Your task to perform on an android device: Open battery settings Image 0: 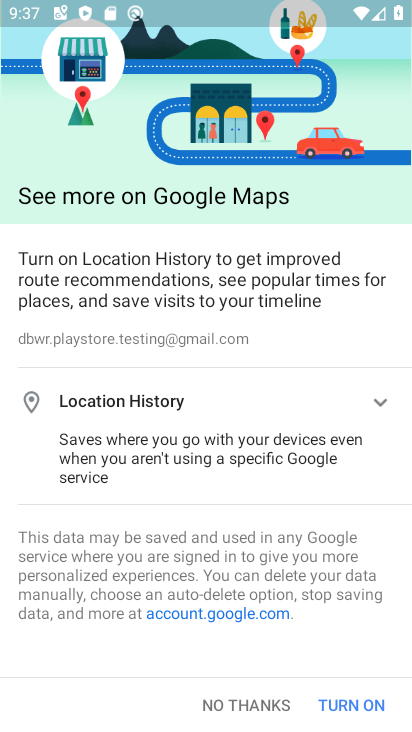
Step 0: press home button
Your task to perform on an android device: Open battery settings Image 1: 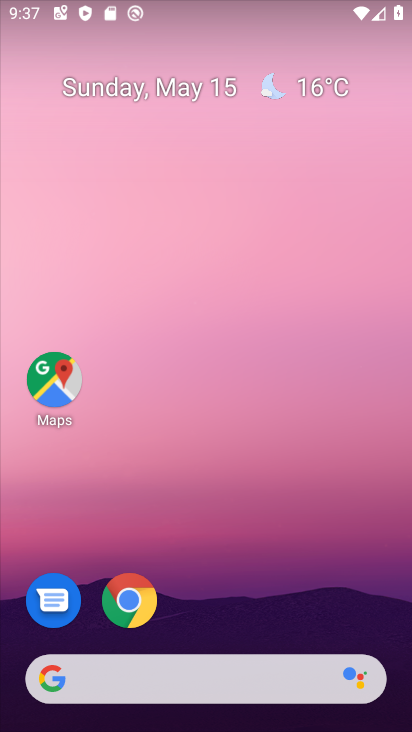
Step 1: drag from (202, 635) to (126, 24)
Your task to perform on an android device: Open battery settings Image 2: 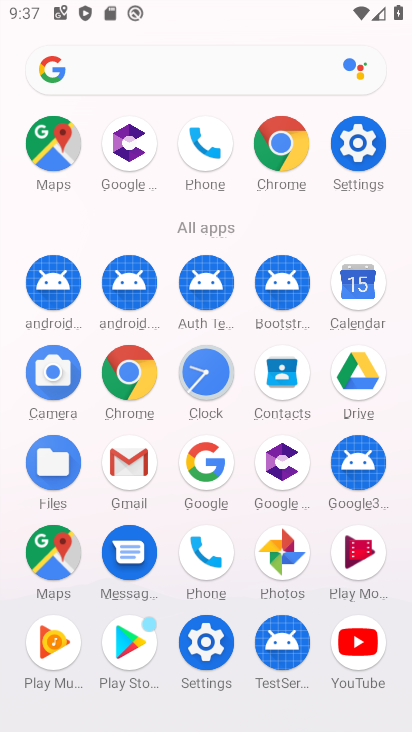
Step 2: click (358, 149)
Your task to perform on an android device: Open battery settings Image 3: 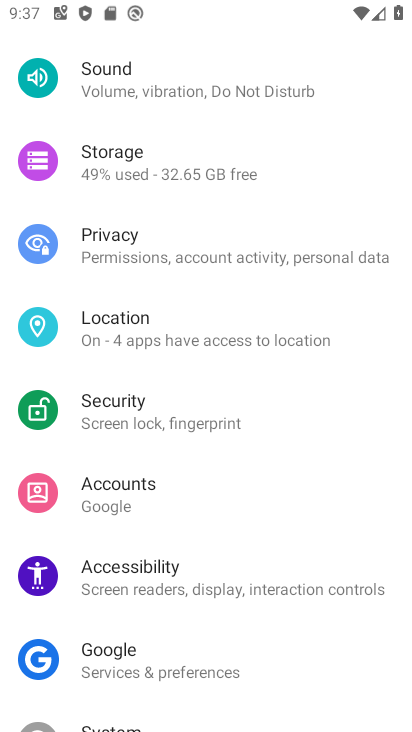
Step 3: drag from (217, 260) to (264, 535)
Your task to perform on an android device: Open battery settings Image 4: 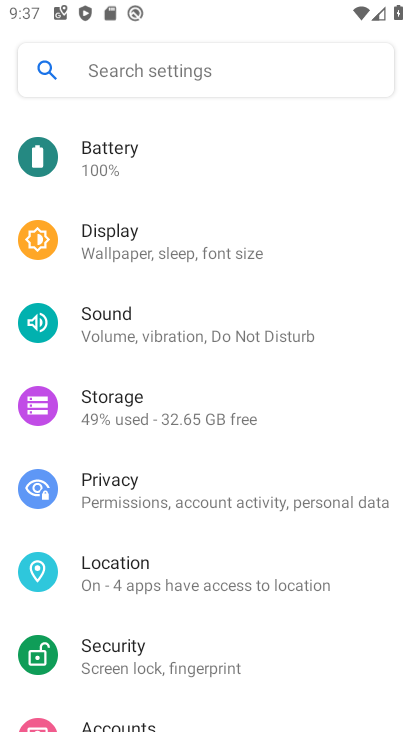
Step 4: click (119, 162)
Your task to perform on an android device: Open battery settings Image 5: 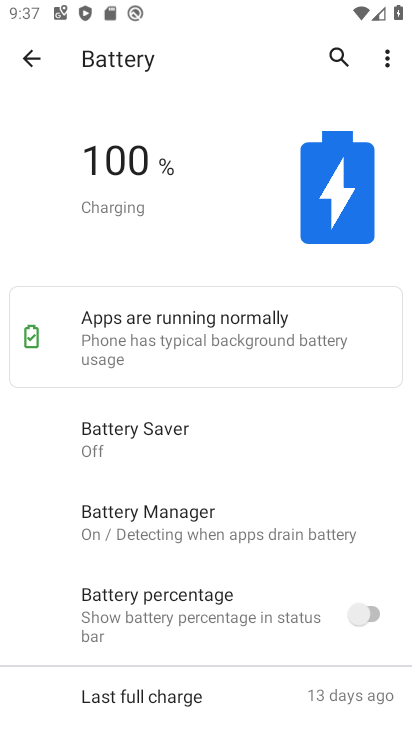
Step 5: task complete